Your task to perform on an android device: Show me popular videos on Youtube Image 0: 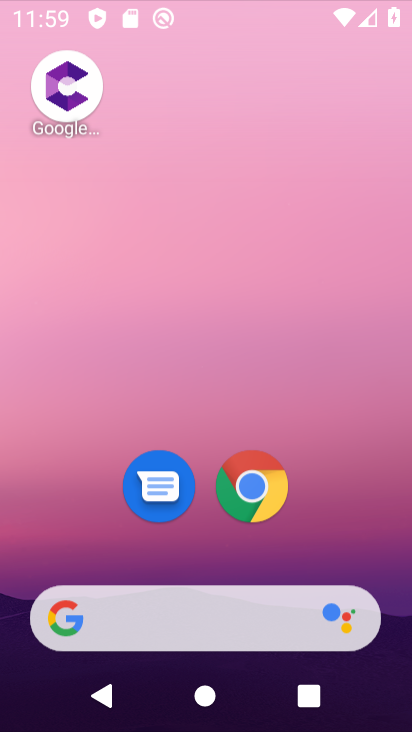
Step 0: press home button
Your task to perform on an android device: Show me popular videos on Youtube Image 1: 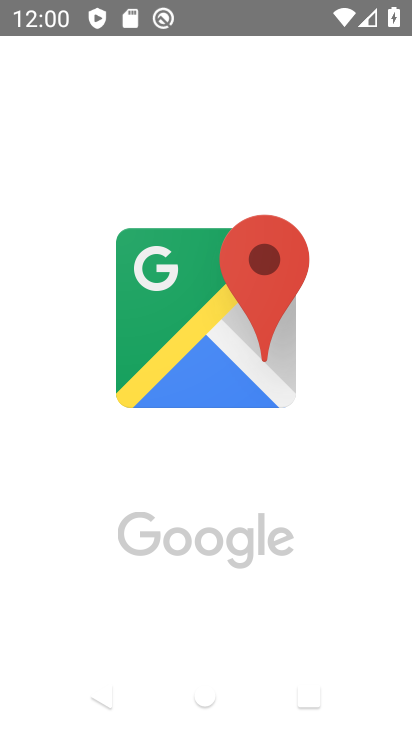
Step 1: press home button
Your task to perform on an android device: Show me popular videos on Youtube Image 2: 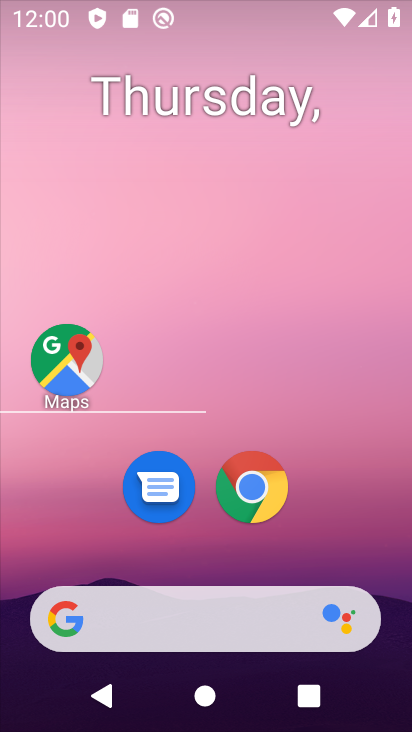
Step 2: press home button
Your task to perform on an android device: Show me popular videos on Youtube Image 3: 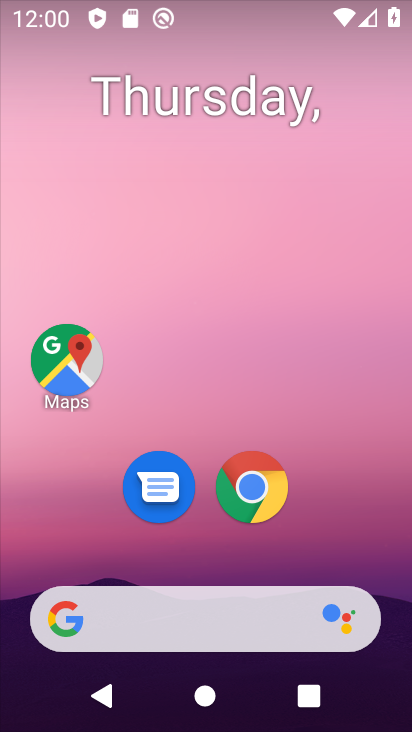
Step 3: press home button
Your task to perform on an android device: Show me popular videos on Youtube Image 4: 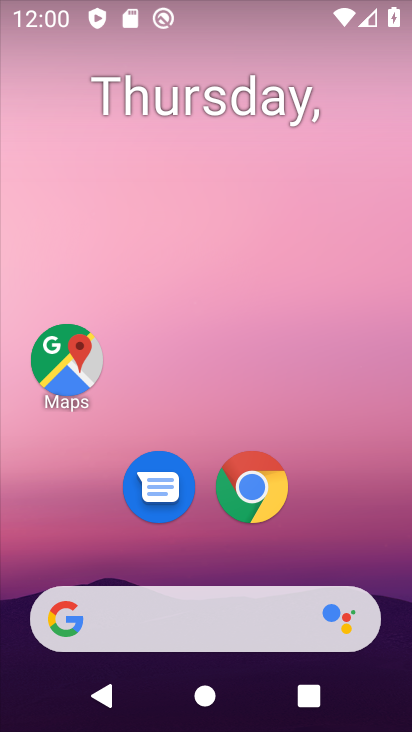
Step 4: press home button
Your task to perform on an android device: Show me popular videos on Youtube Image 5: 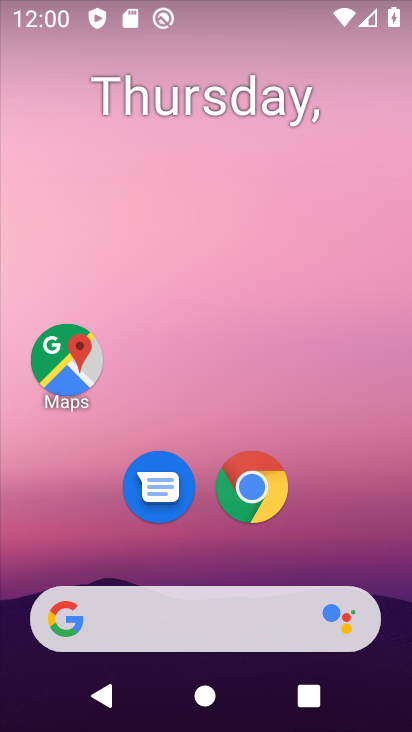
Step 5: drag from (344, 517) to (251, 0)
Your task to perform on an android device: Show me popular videos on Youtube Image 6: 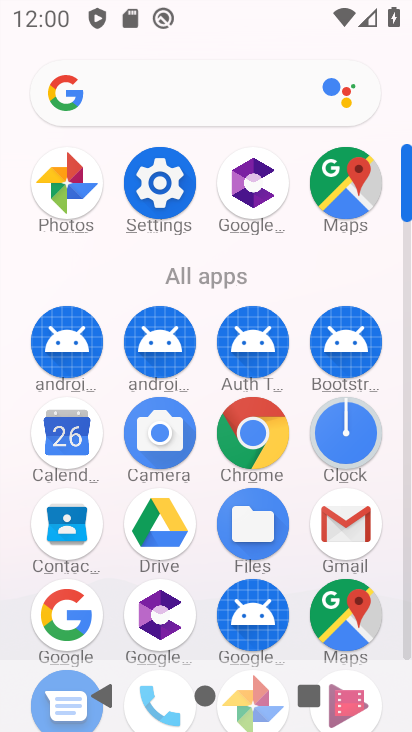
Step 6: click (405, 654)
Your task to perform on an android device: Show me popular videos on Youtube Image 7: 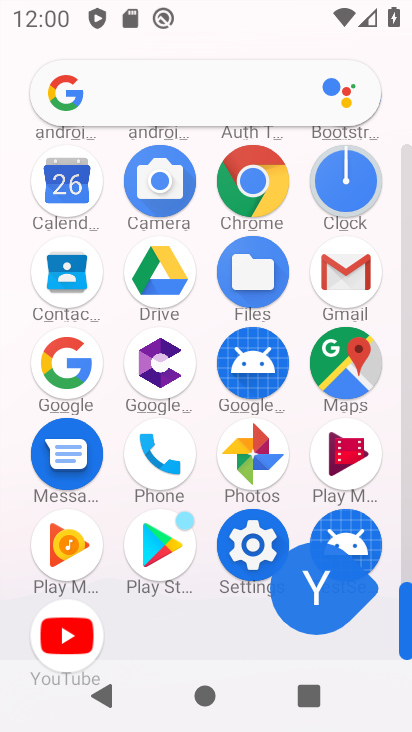
Step 7: click (405, 654)
Your task to perform on an android device: Show me popular videos on Youtube Image 8: 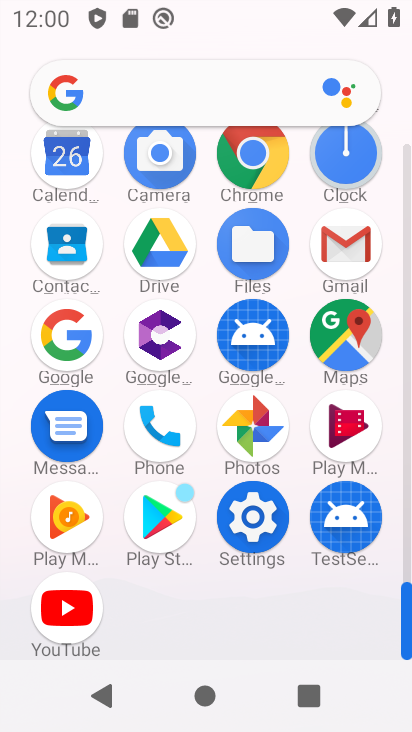
Step 8: click (39, 611)
Your task to perform on an android device: Show me popular videos on Youtube Image 9: 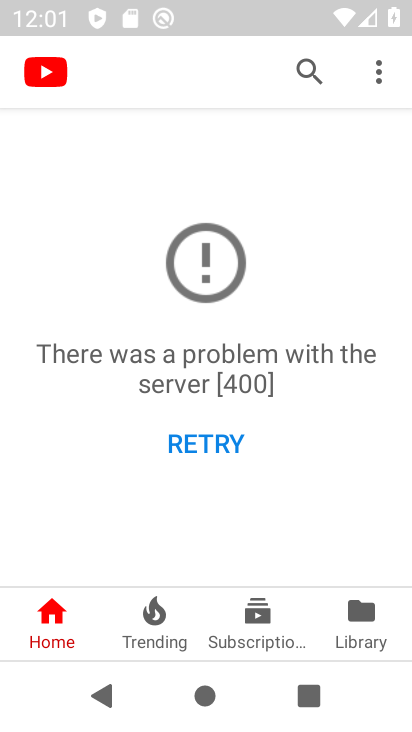
Step 9: task complete